Your task to perform on an android device: open app "DoorDash - Dasher" Image 0: 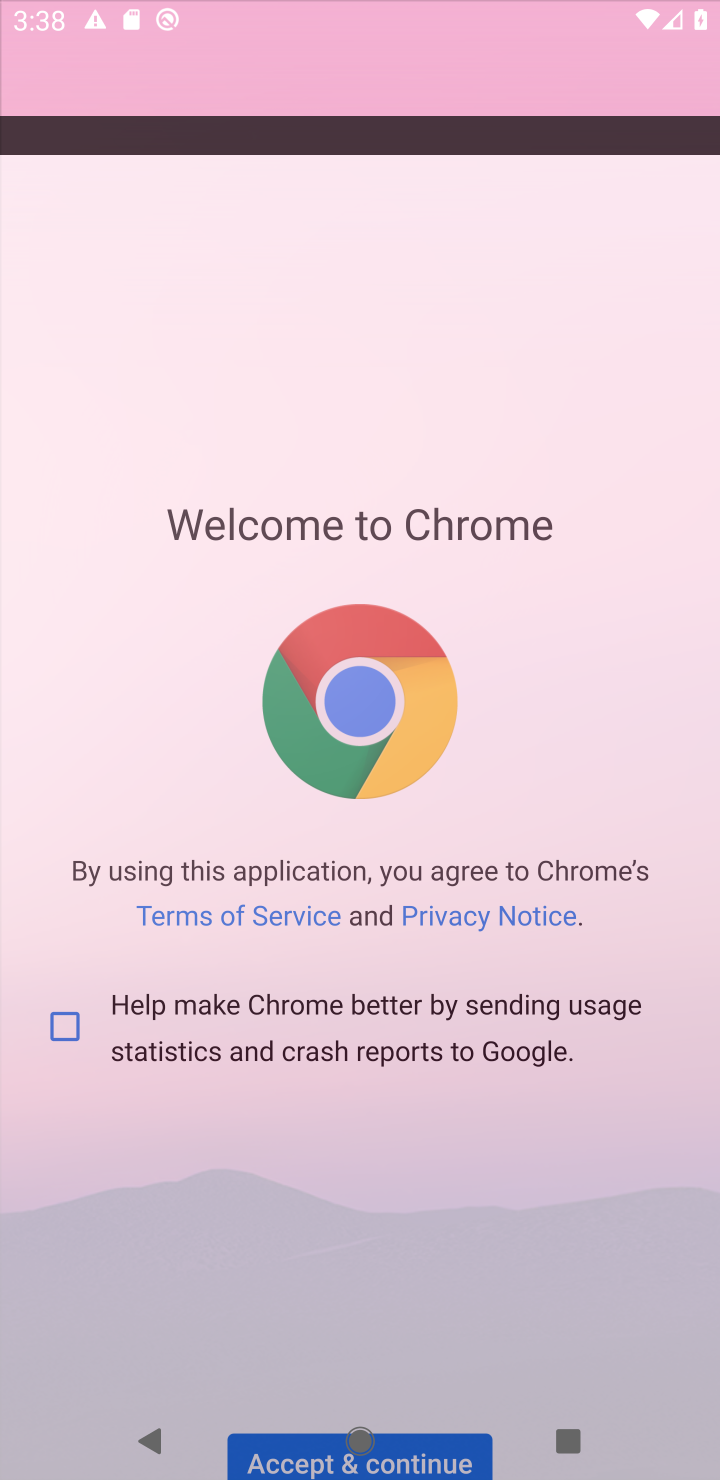
Step 0: press back button
Your task to perform on an android device: open app "DoorDash - Dasher" Image 1: 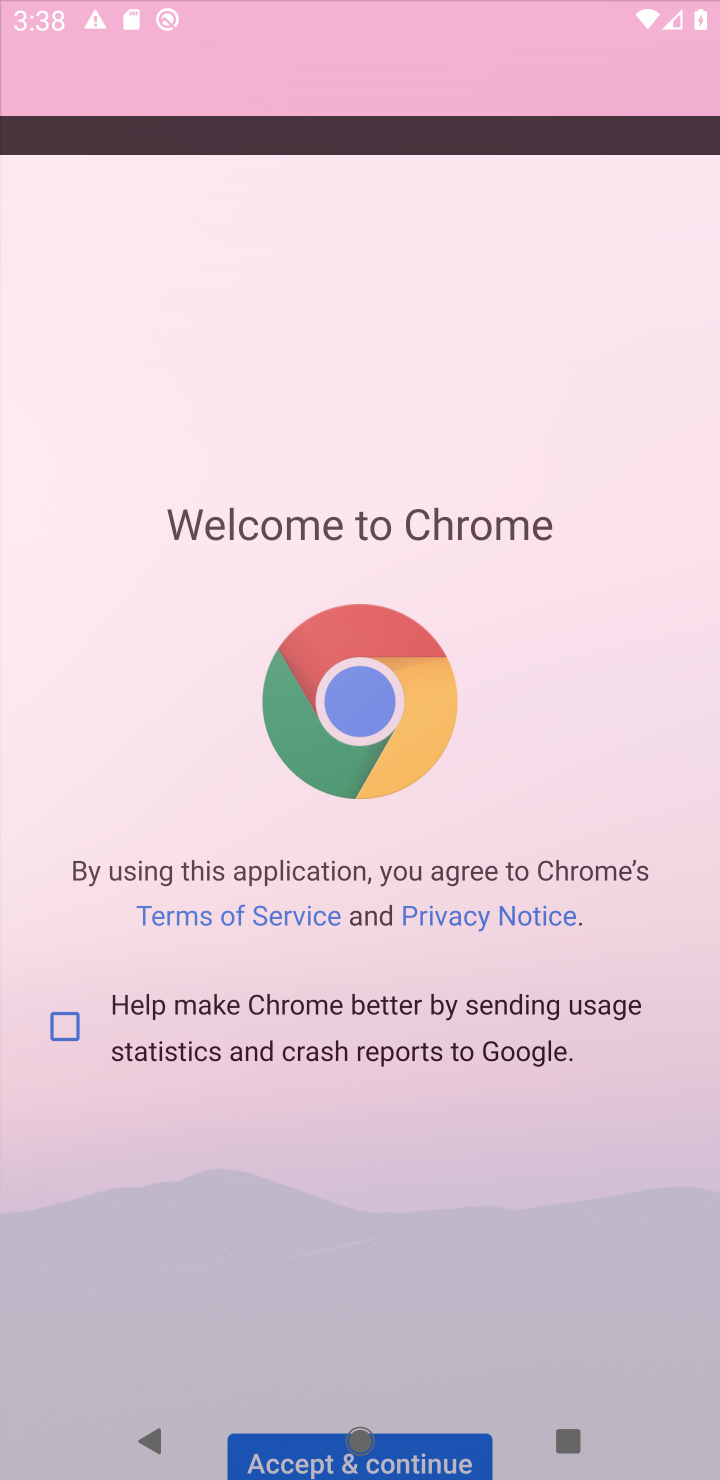
Step 1: click (446, 620)
Your task to perform on an android device: open app "DoorDash - Dasher" Image 2: 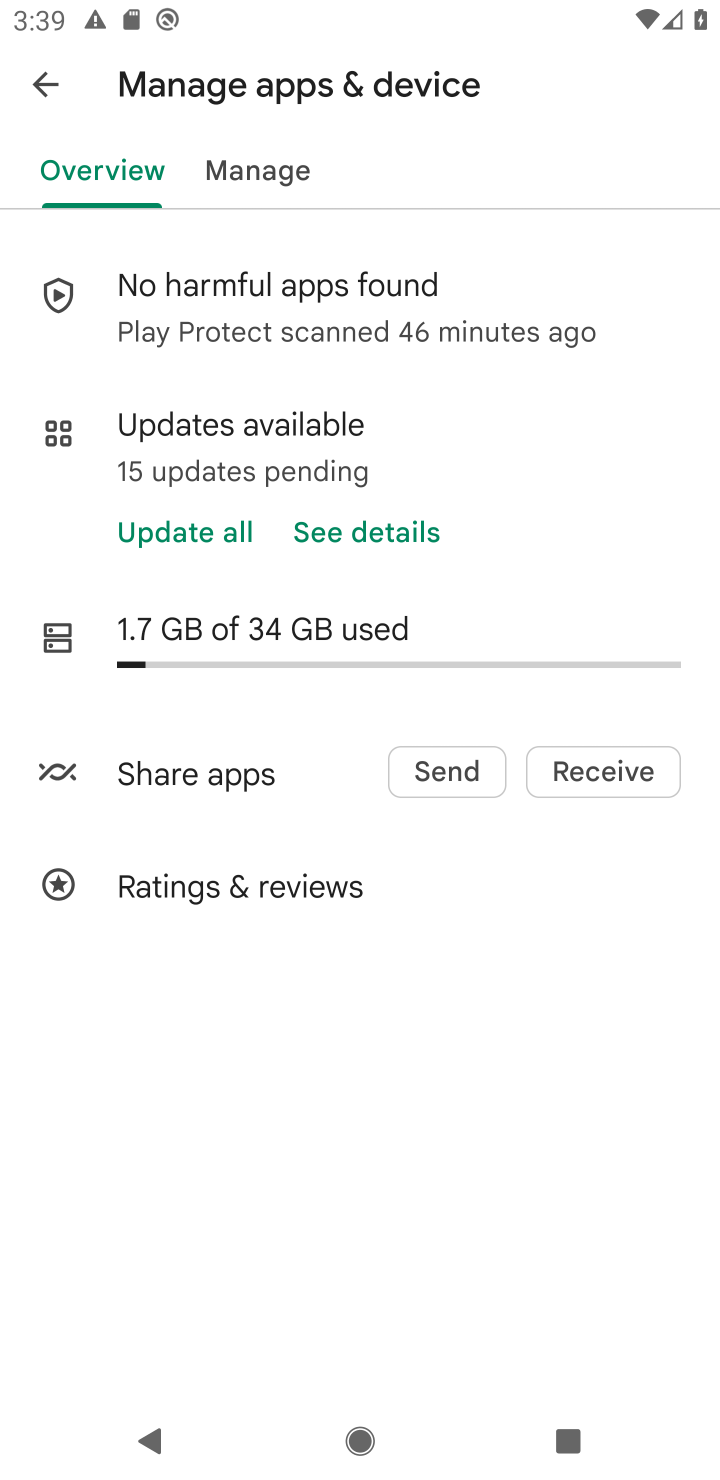
Step 2: click (33, 88)
Your task to perform on an android device: open app "DoorDash - Dasher" Image 3: 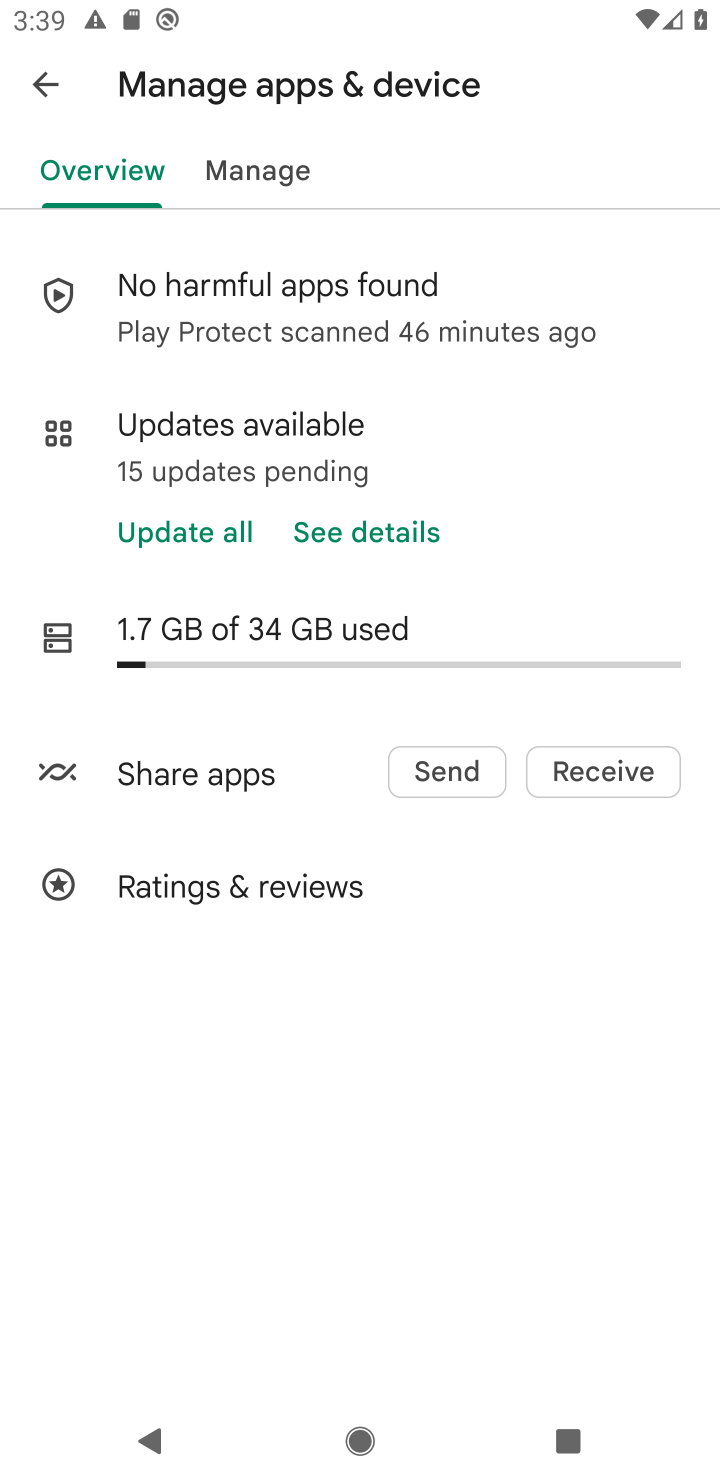
Step 3: click (48, 101)
Your task to perform on an android device: open app "DoorDash - Dasher" Image 4: 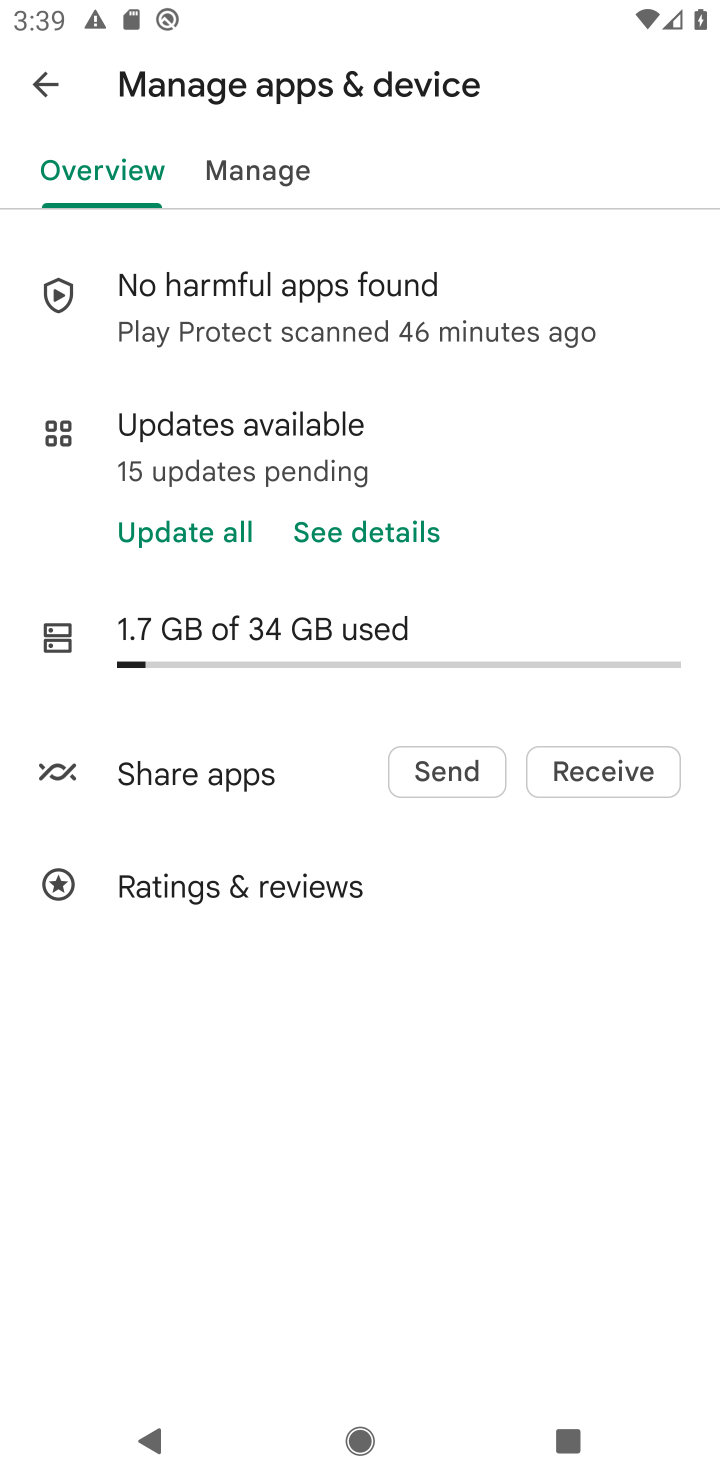
Step 4: click (48, 101)
Your task to perform on an android device: open app "DoorDash - Dasher" Image 5: 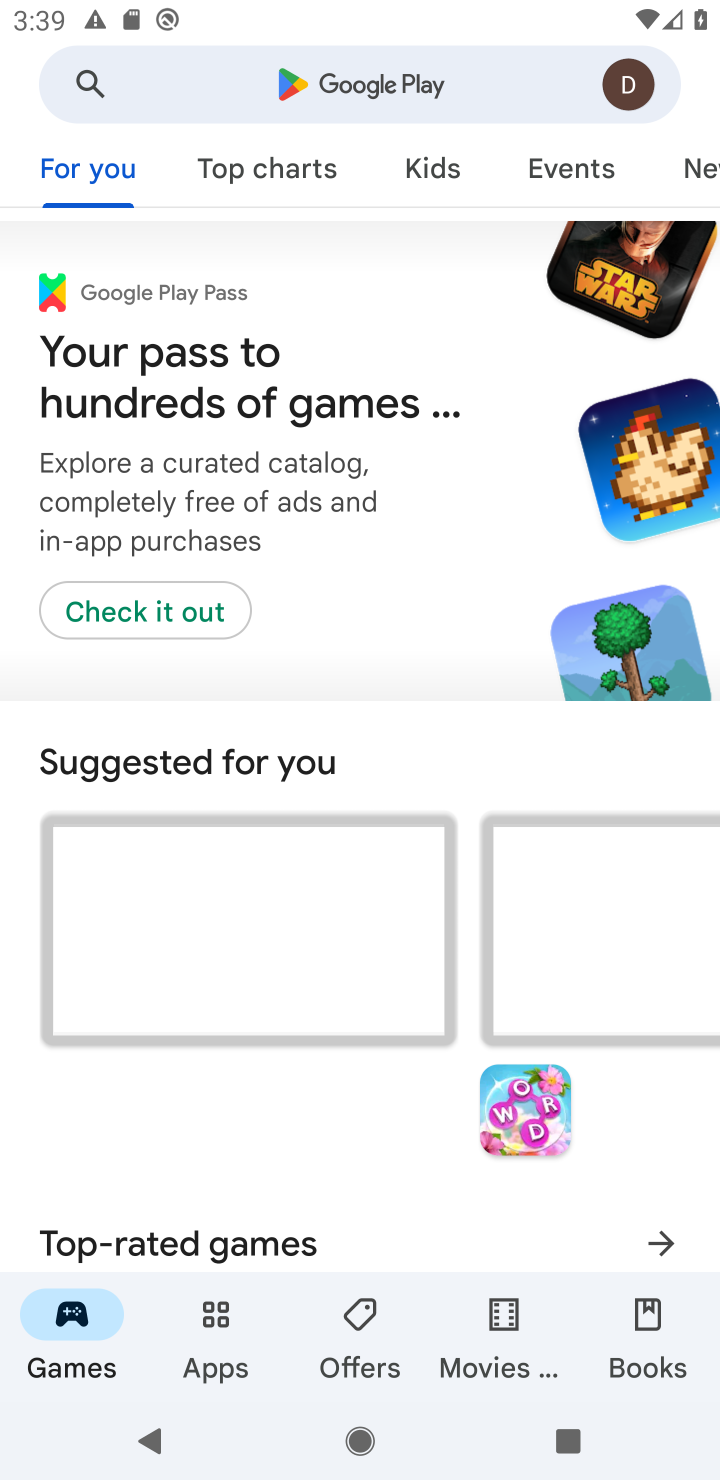
Step 5: click (300, 73)
Your task to perform on an android device: open app "DoorDash - Dasher" Image 6: 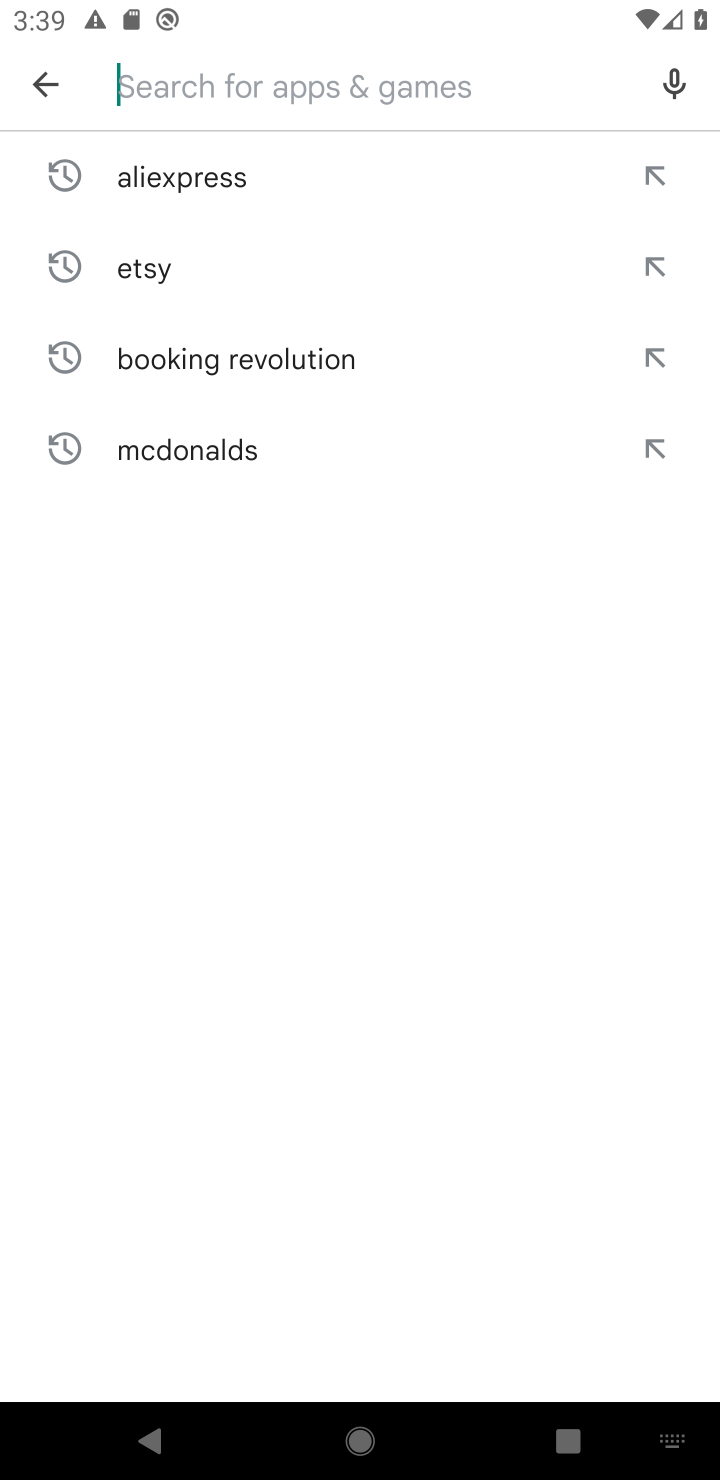
Step 6: type "doordash"
Your task to perform on an android device: open app "DoorDash - Dasher" Image 7: 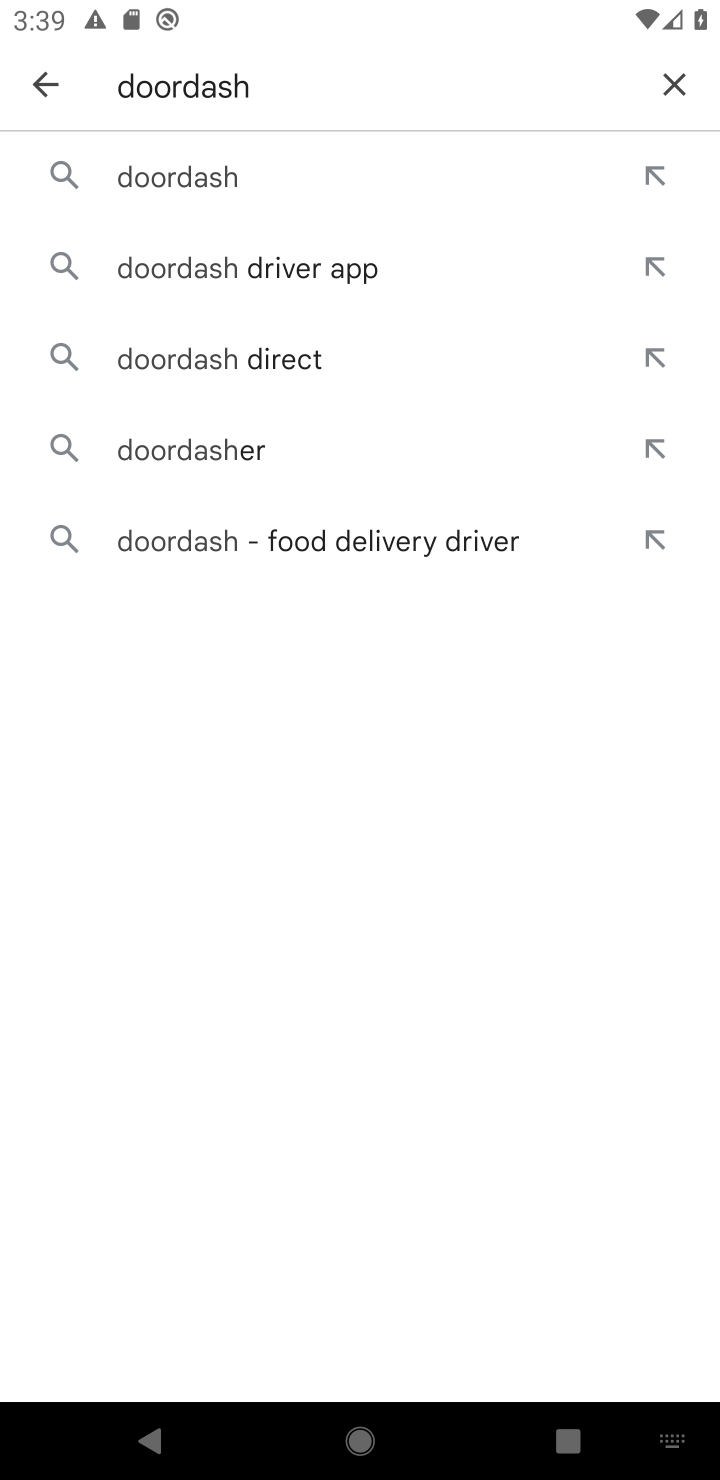
Step 7: click (197, 198)
Your task to perform on an android device: open app "DoorDash - Dasher" Image 8: 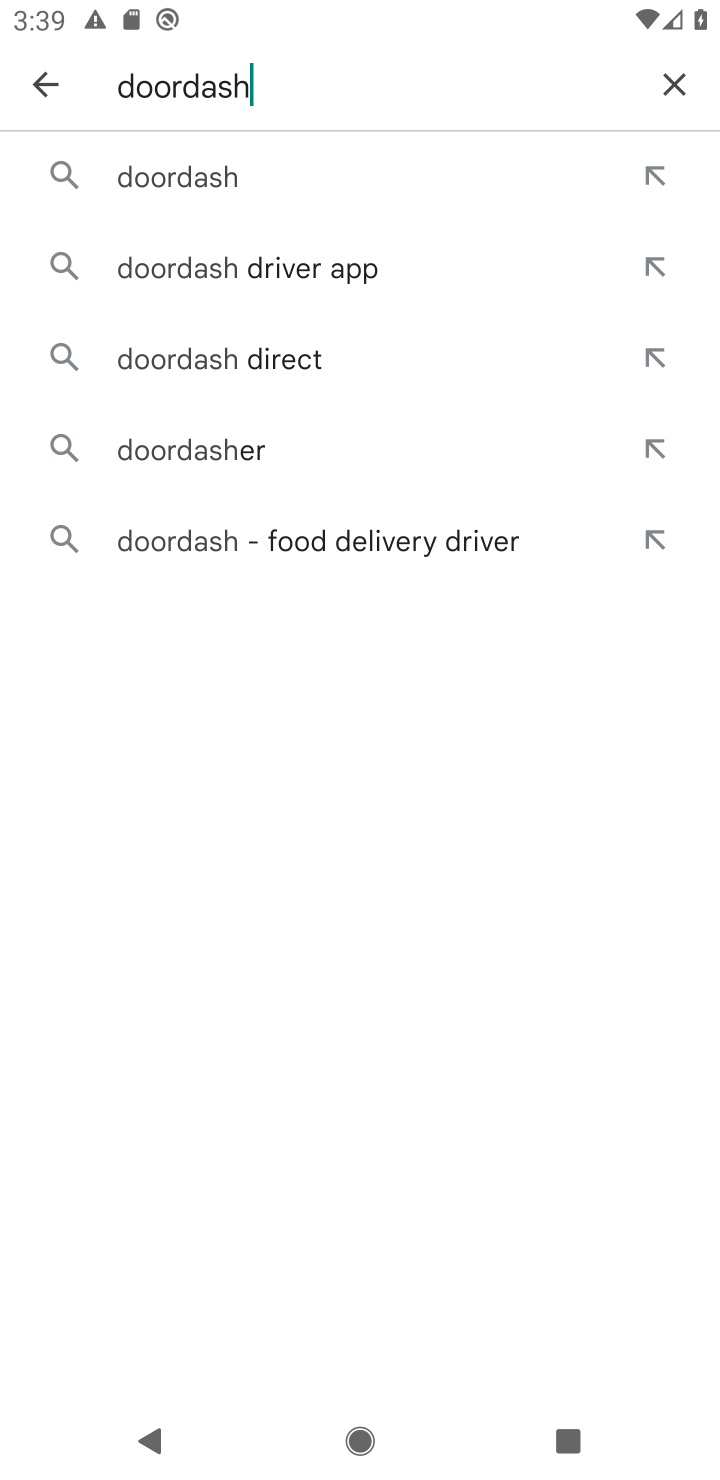
Step 8: click (151, 176)
Your task to perform on an android device: open app "DoorDash - Dasher" Image 9: 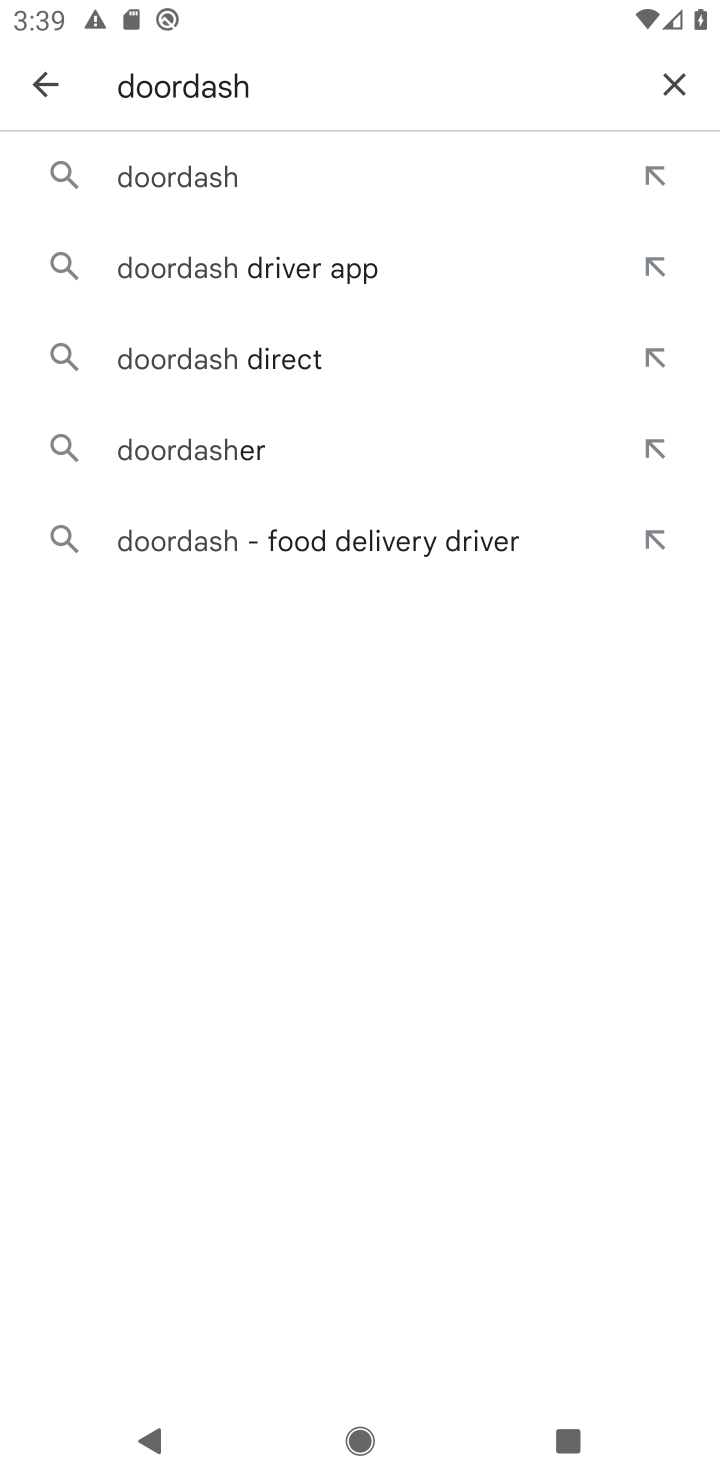
Step 9: click (153, 172)
Your task to perform on an android device: open app "DoorDash - Dasher" Image 10: 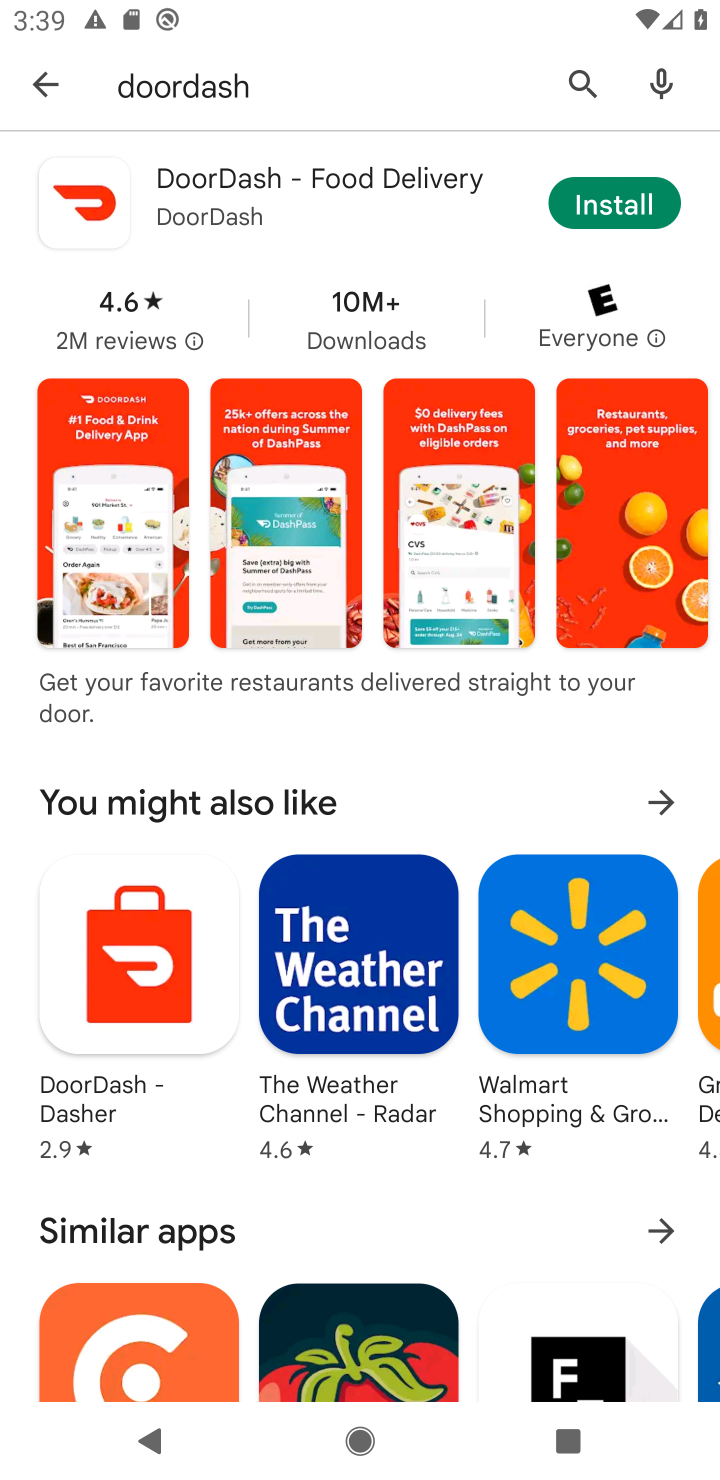
Step 10: click (611, 203)
Your task to perform on an android device: open app "DoorDash - Dasher" Image 11: 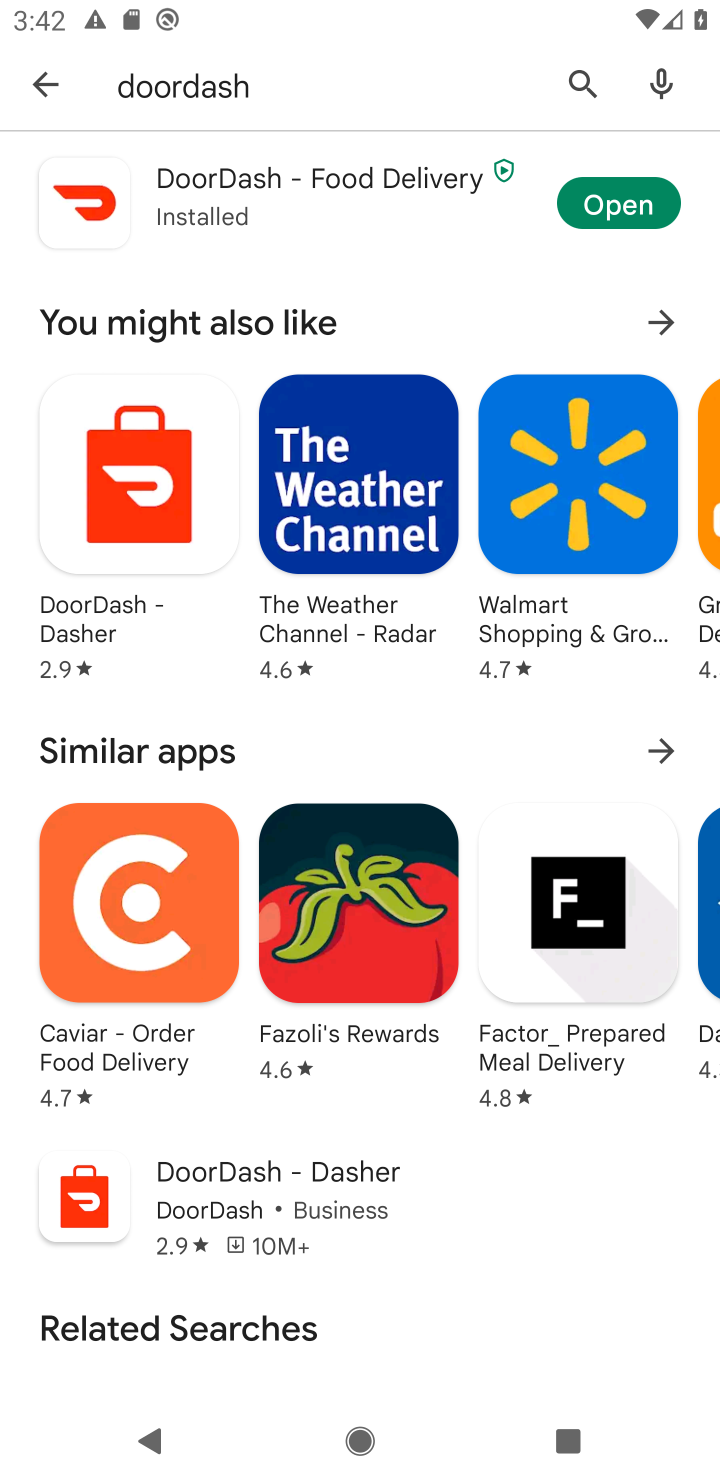
Step 11: click (625, 207)
Your task to perform on an android device: open app "DoorDash - Dasher" Image 12: 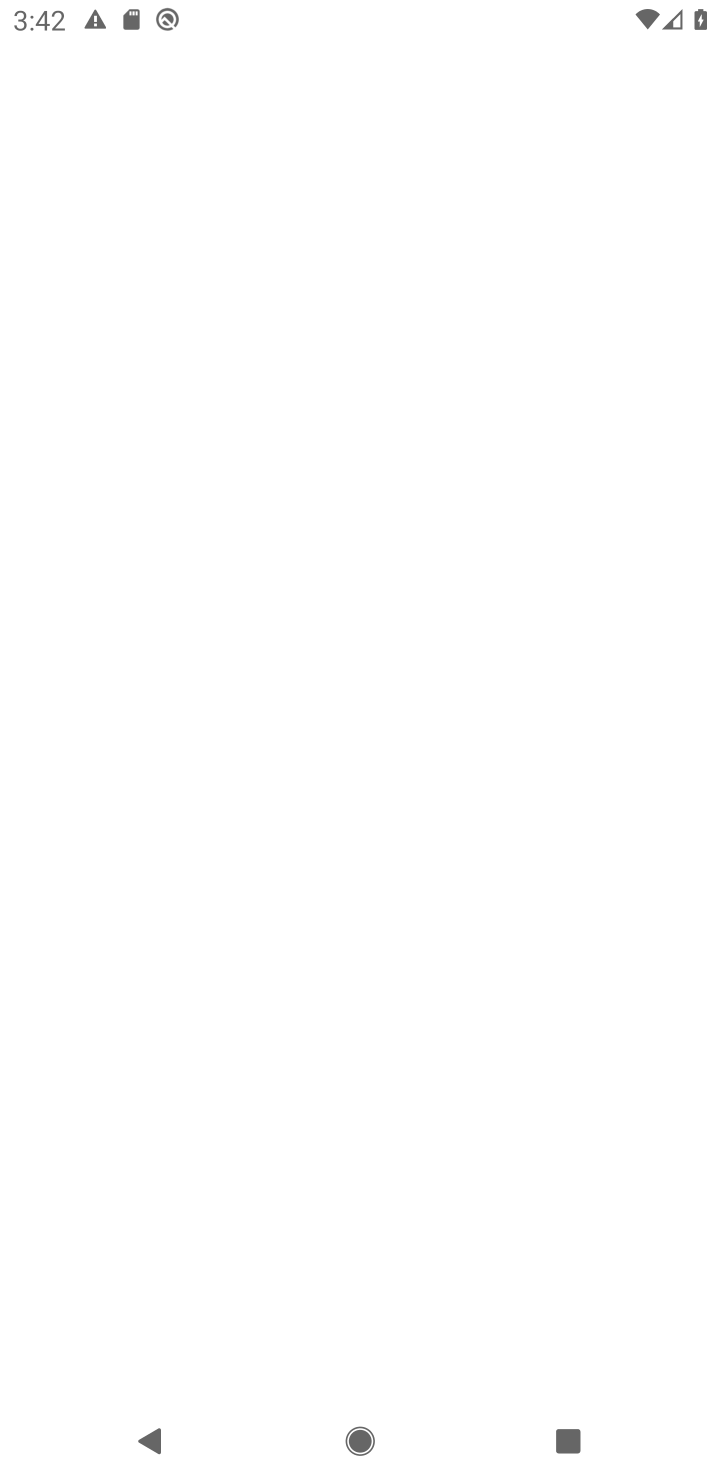
Step 12: click (33, 227)
Your task to perform on an android device: open app "DoorDash - Dasher" Image 13: 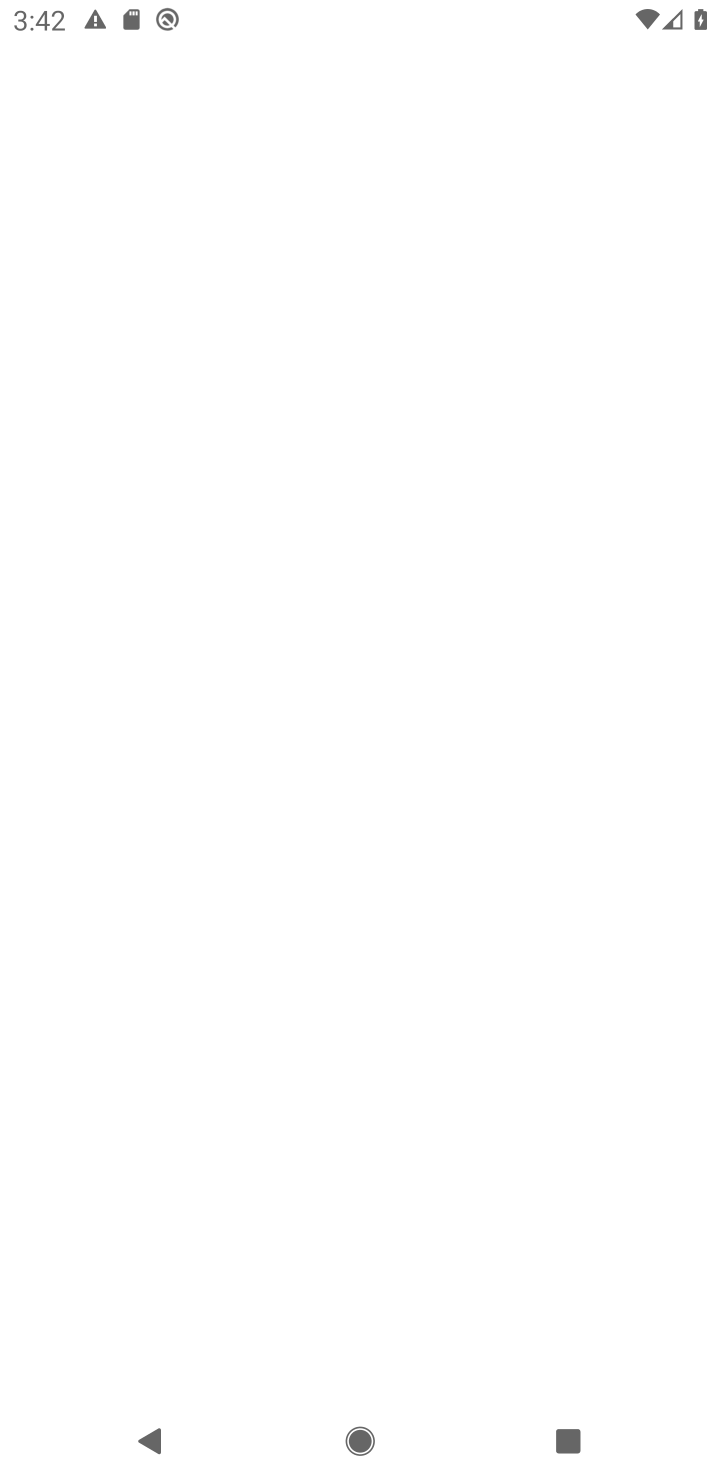
Step 13: click (33, 227)
Your task to perform on an android device: open app "DoorDash - Dasher" Image 14: 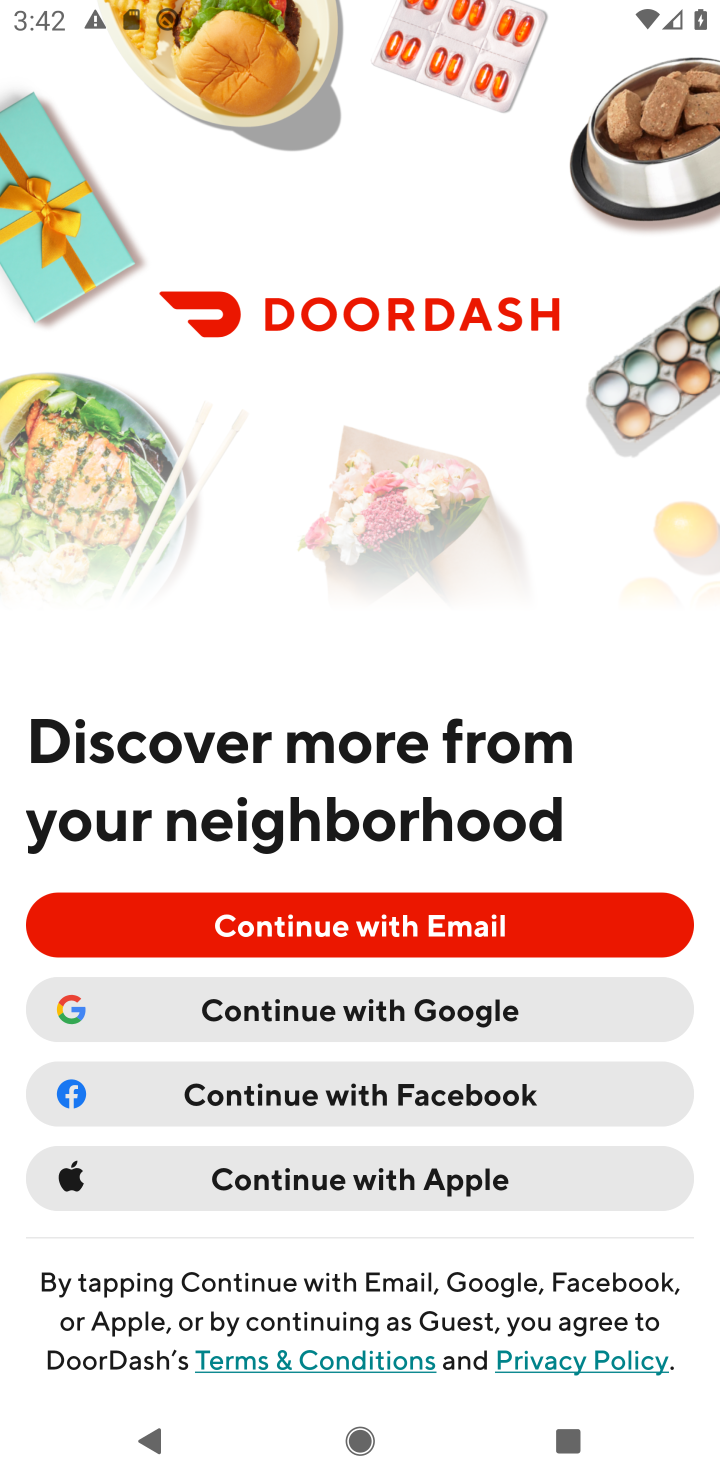
Step 14: task complete